Your task to perform on an android device: Go to calendar. Show me events next week Image 0: 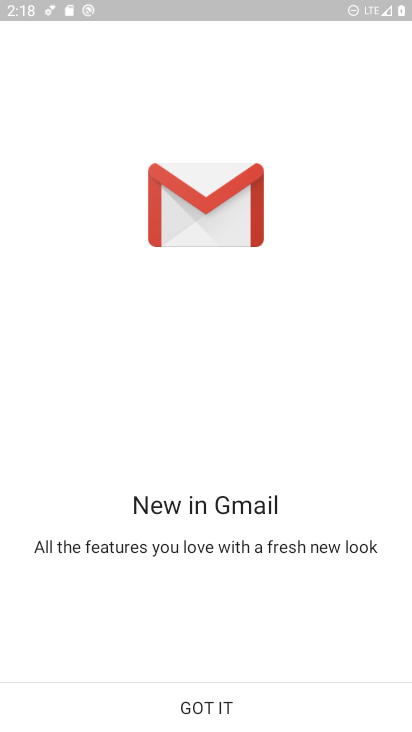
Step 0: press home button
Your task to perform on an android device: Go to calendar. Show me events next week Image 1: 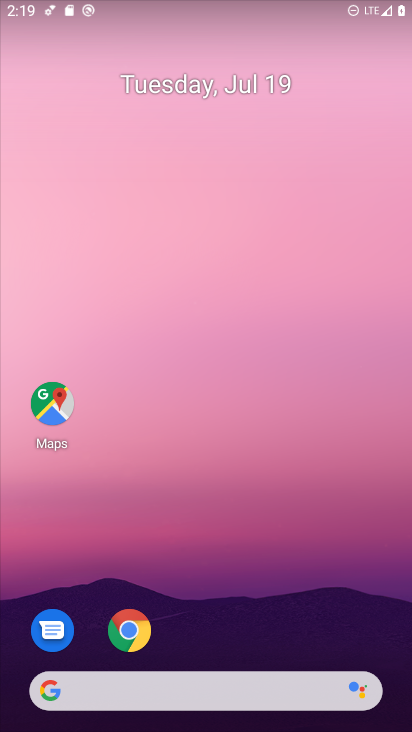
Step 1: drag from (385, 644) to (323, 145)
Your task to perform on an android device: Go to calendar. Show me events next week Image 2: 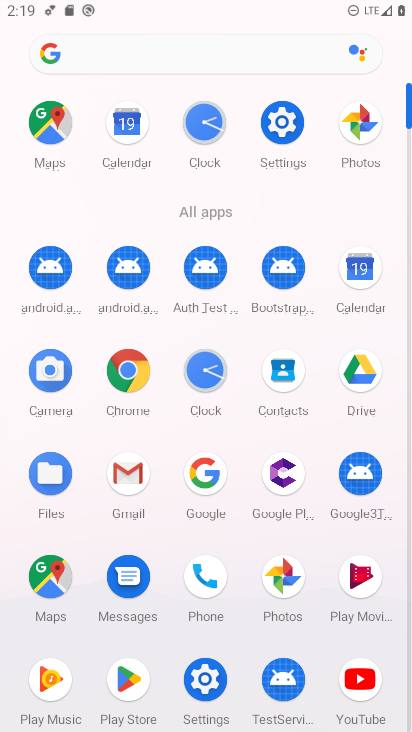
Step 2: click (360, 268)
Your task to perform on an android device: Go to calendar. Show me events next week Image 3: 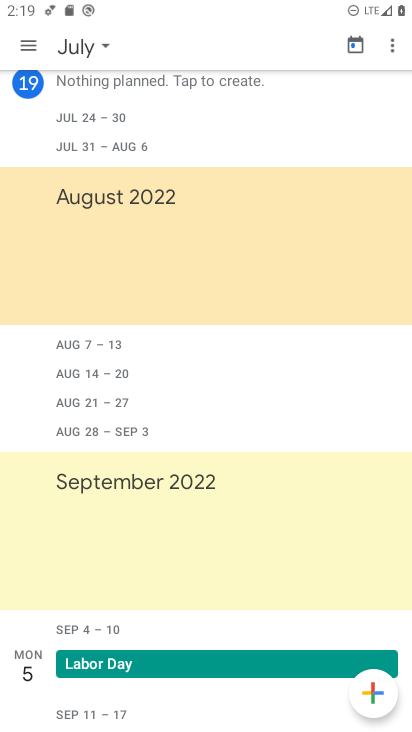
Step 3: click (29, 43)
Your task to perform on an android device: Go to calendar. Show me events next week Image 4: 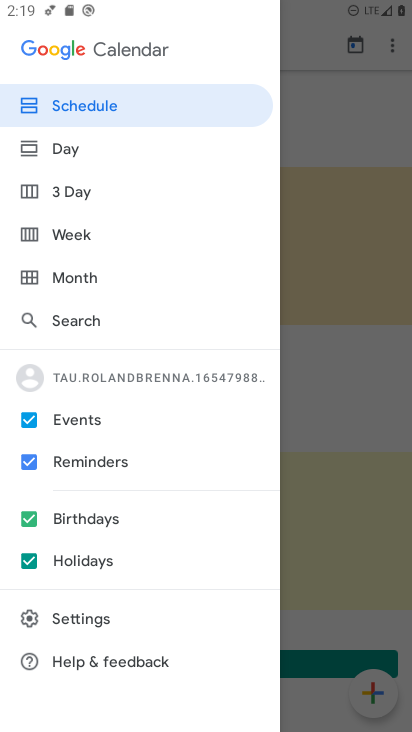
Step 4: click (74, 235)
Your task to perform on an android device: Go to calendar. Show me events next week Image 5: 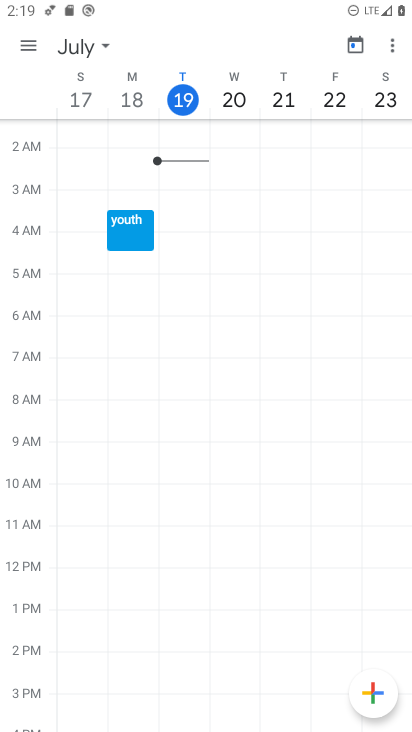
Step 5: click (101, 49)
Your task to perform on an android device: Go to calendar. Show me events next week Image 6: 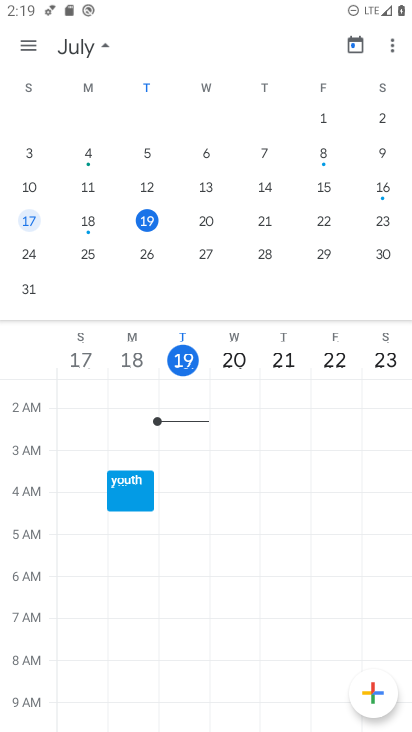
Step 6: click (31, 255)
Your task to perform on an android device: Go to calendar. Show me events next week Image 7: 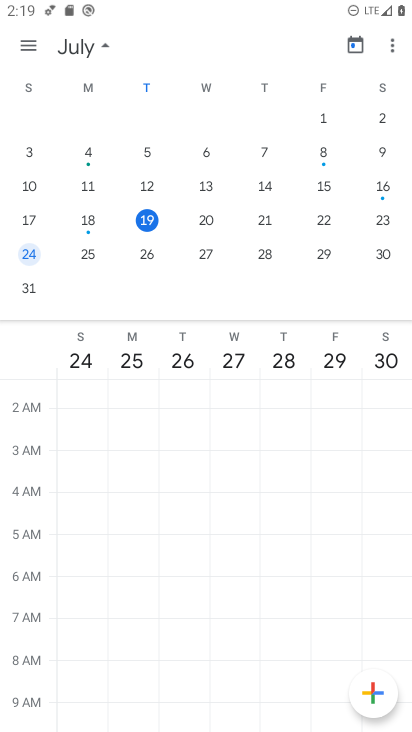
Step 7: task complete